Your task to perform on an android device: What is the news today? Image 0: 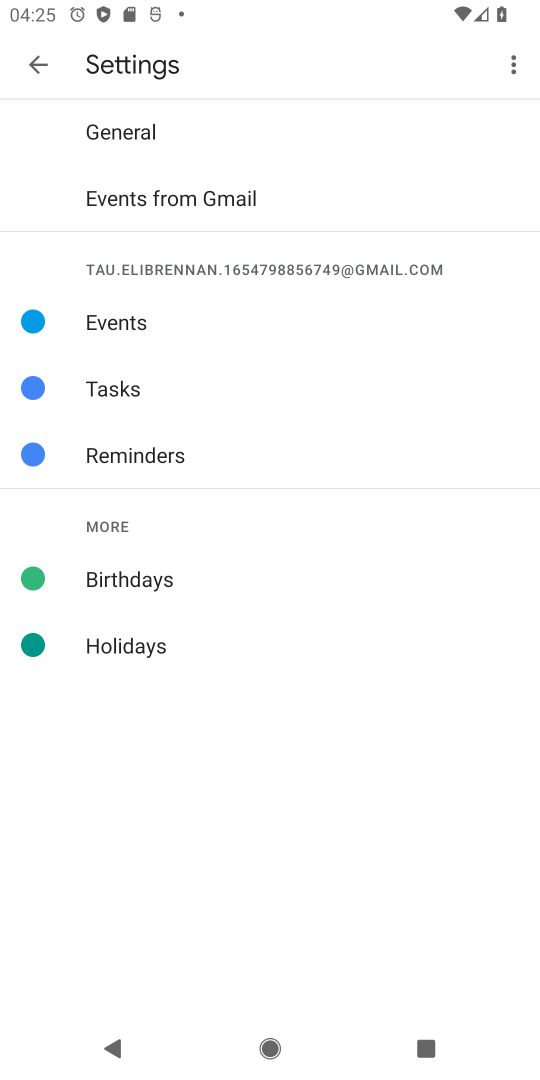
Step 0: press home button
Your task to perform on an android device: What is the news today? Image 1: 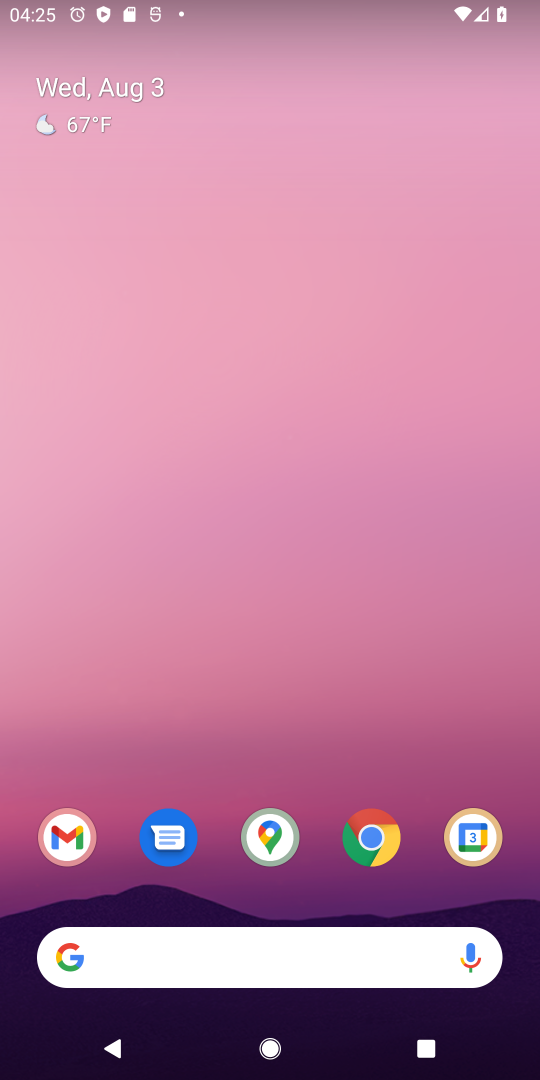
Step 1: task complete